Your task to perform on an android device: turn off notifications settings in the gmail app Image 0: 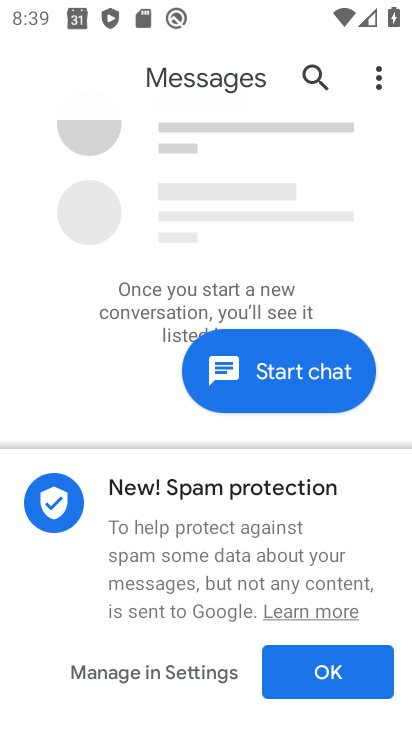
Step 0: press back button
Your task to perform on an android device: turn off notifications settings in the gmail app Image 1: 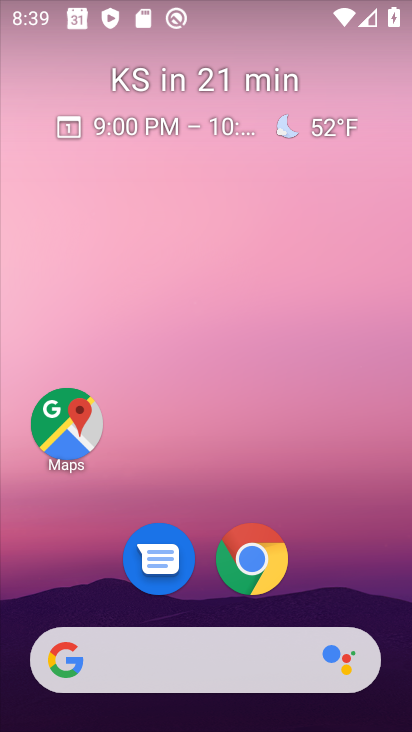
Step 1: drag from (327, 564) to (261, 24)
Your task to perform on an android device: turn off notifications settings in the gmail app Image 2: 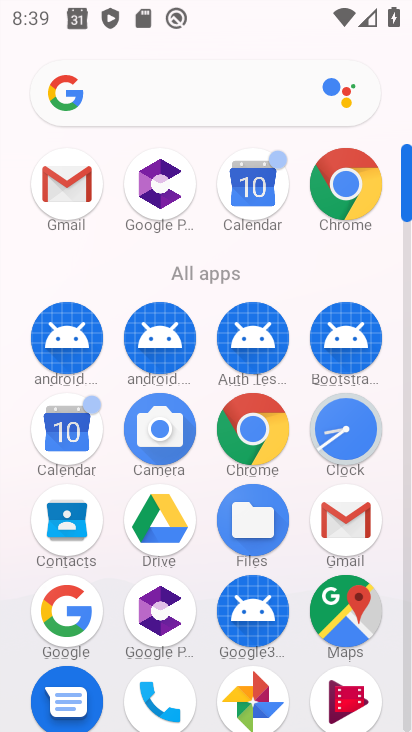
Step 2: click (348, 511)
Your task to perform on an android device: turn off notifications settings in the gmail app Image 3: 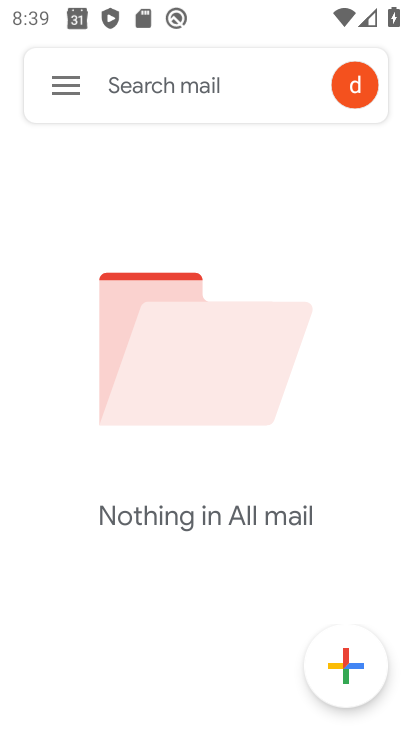
Step 3: click (70, 80)
Your task to perform on an android device: turn off notifications settings in the gmail app Image 4: 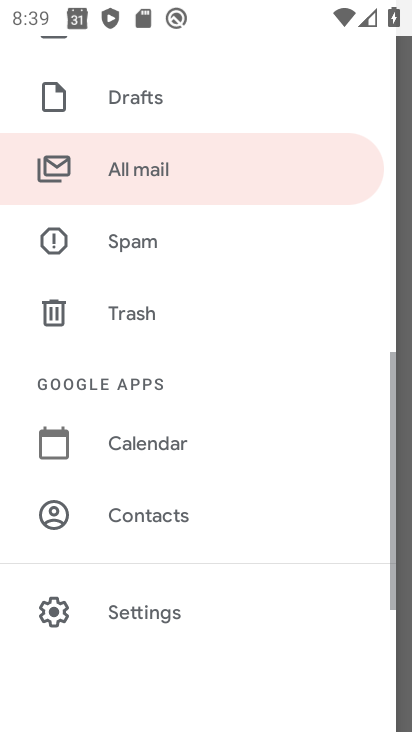
Step 4: click (135, 602)
Your task to perform on an android device: turn off notifications settings in the gmail app Image 5: 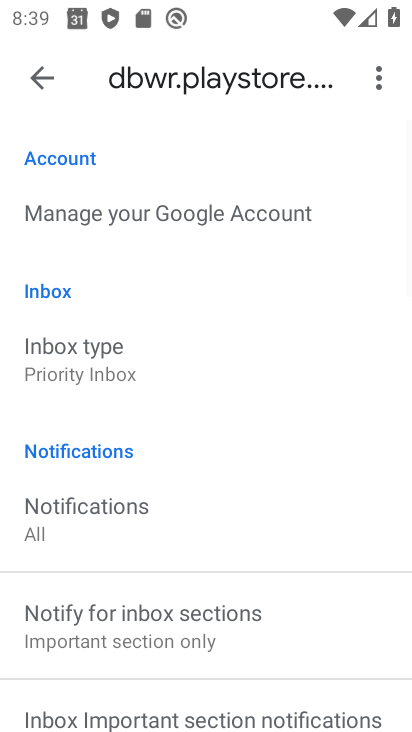
Step 5: drag from (225, 567) to (231, 197)
Your task to perform on an android device: turn off notifications settings in the gmail app Image 6: 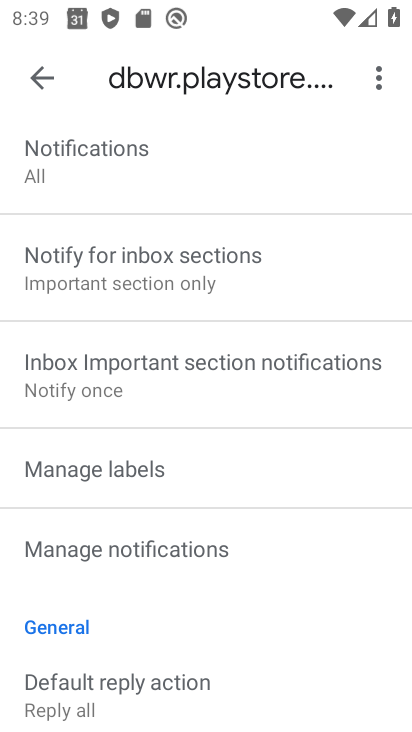
Step 6: click (126, 542)
Your task to perform on an android device: turn off notifications settings in the gmail app Image 7: 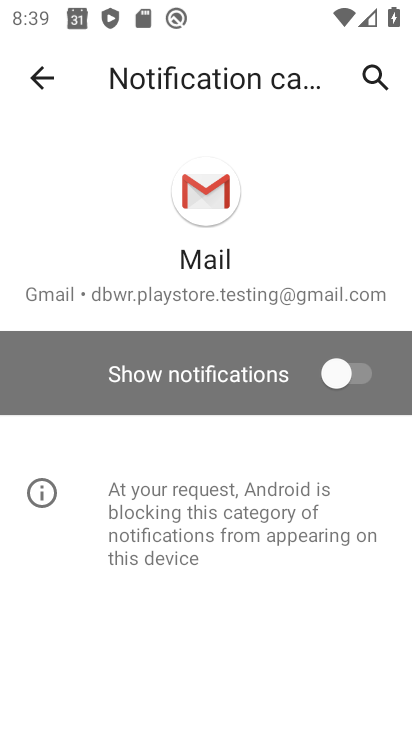
Step 7: task complete